Your task to perform on an android device: Show the shopping cart on costco. Search for razer blade on costco, select the first entry, add it to the cart, then select checkout. Image 0: 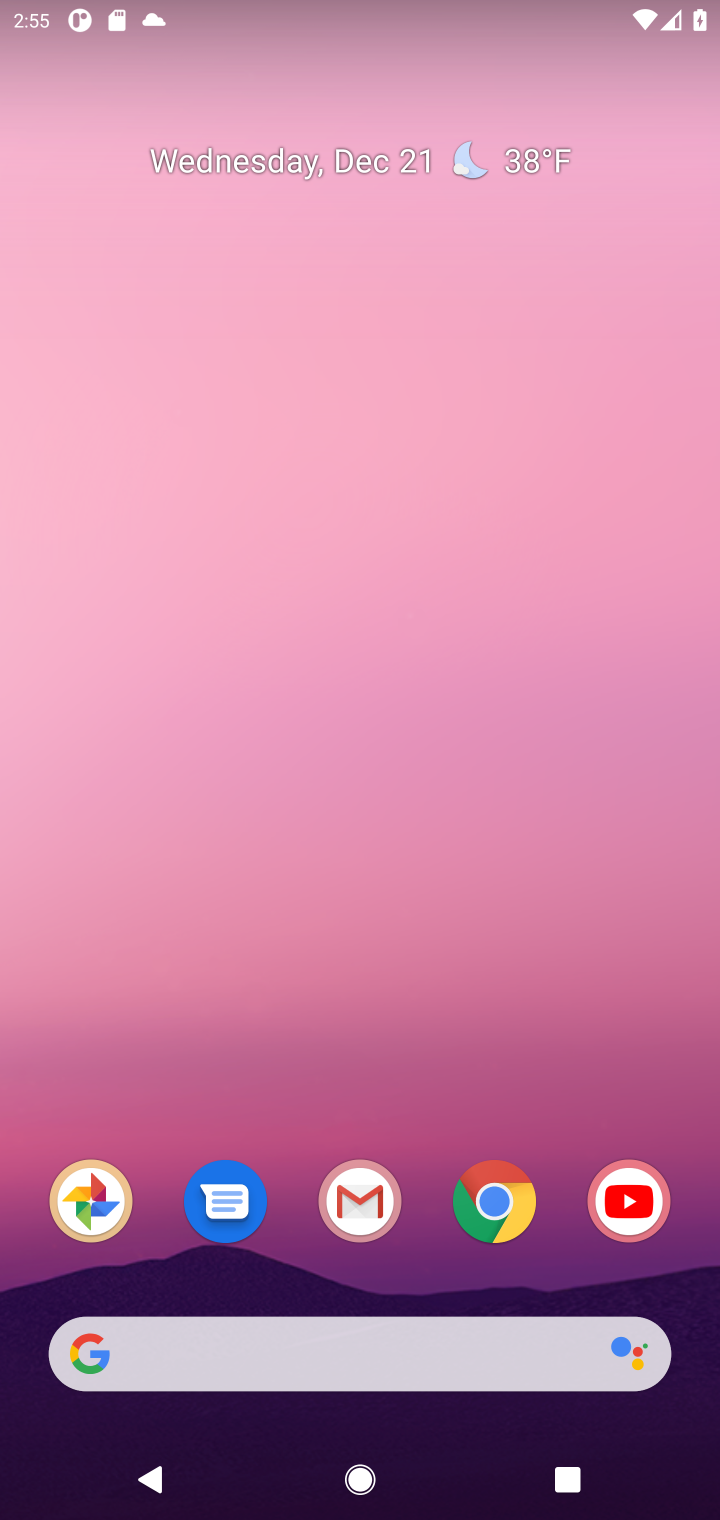
Step 0: click (495, 1204)
Your task to perform on an android device: Show the shopping cart on costco. Search for razer blade on costco, select the first entry, add it to the cart, then select checkout. Image 1: 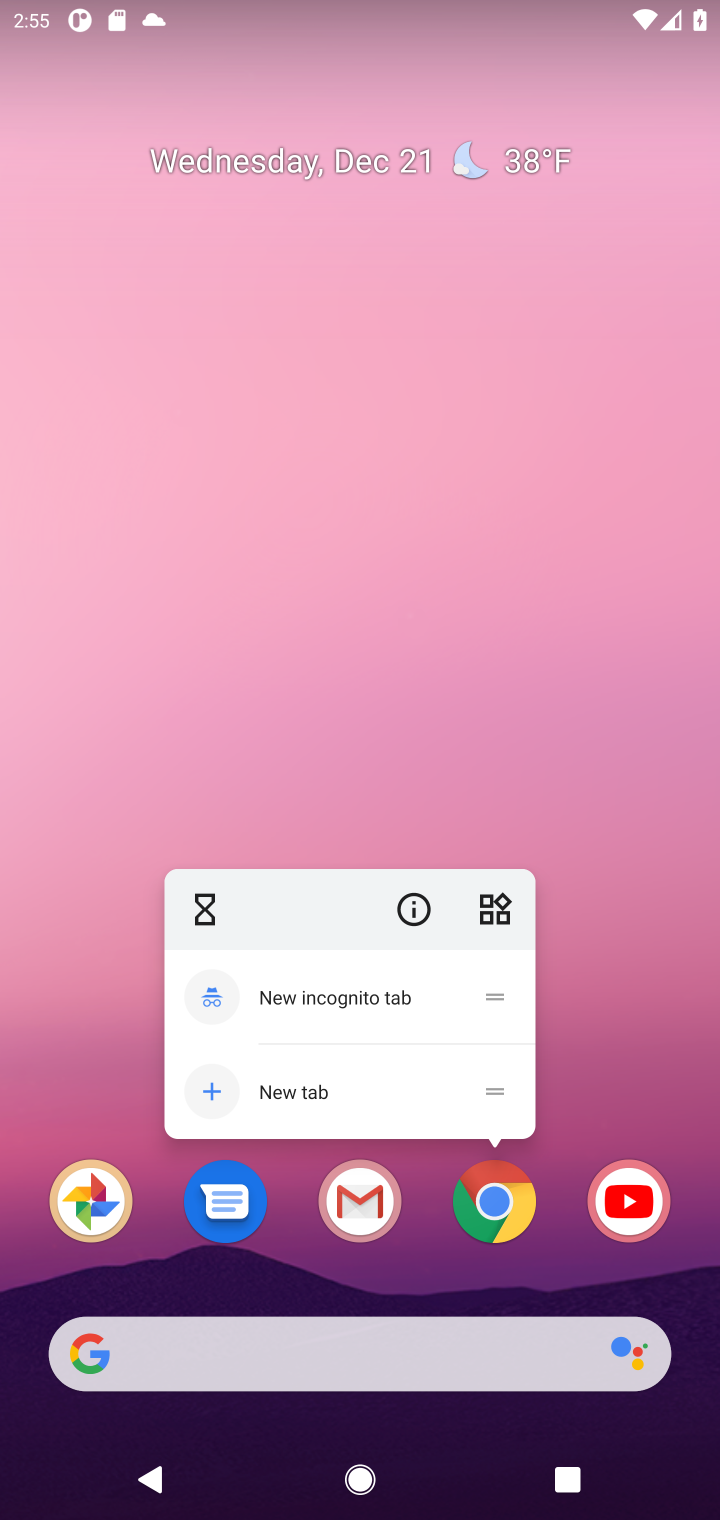
Step 1: click (501, 1214)
Your task to perform on an android device: Show the shopping cart on costco. Search for razer blade on costco, select the first entry, add it to the cart, then select checkout. Image 2: 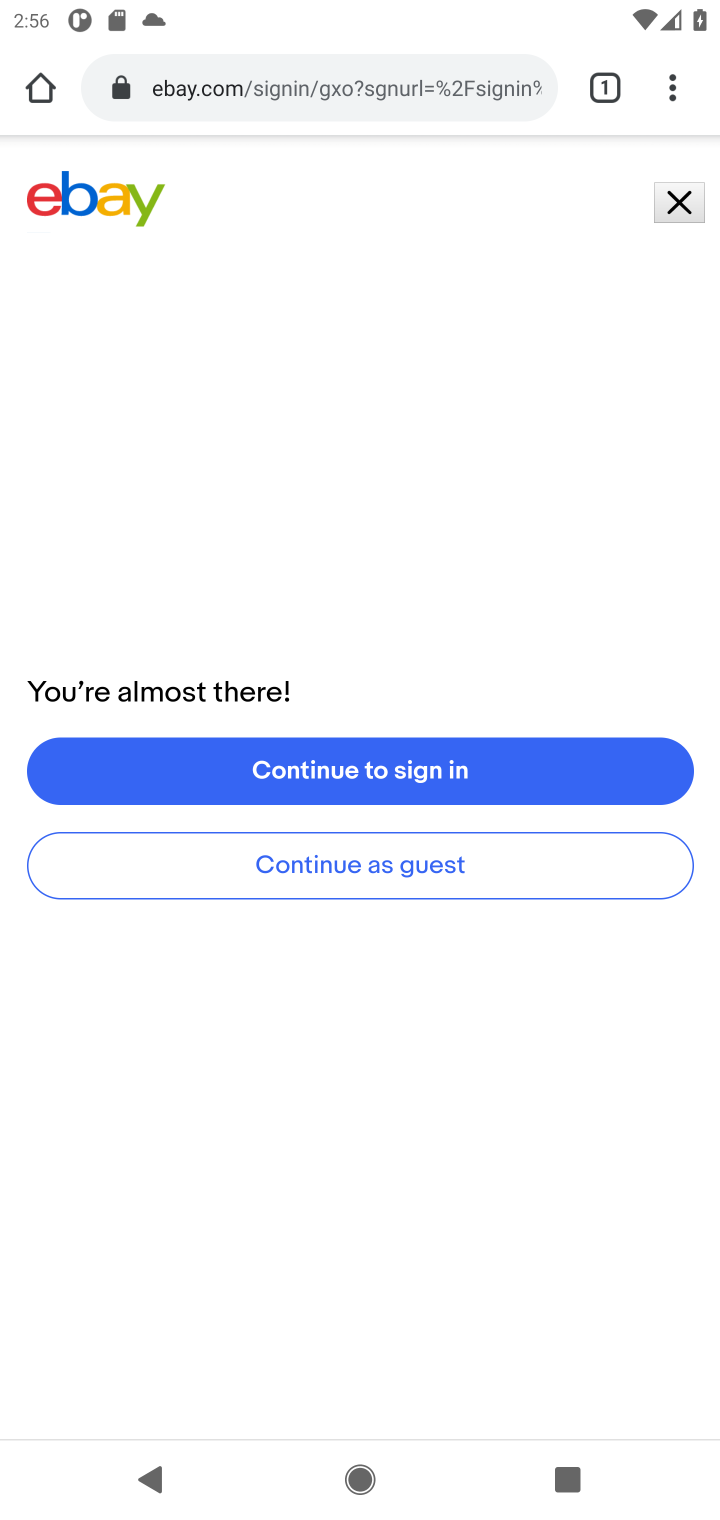
Step 2: click (202, 98)
Your task to perform on an android device: Show the shopping cart on costco. Search for razer blade on costco, select the first entry, add it to the cart, then select checkout. Image 3: 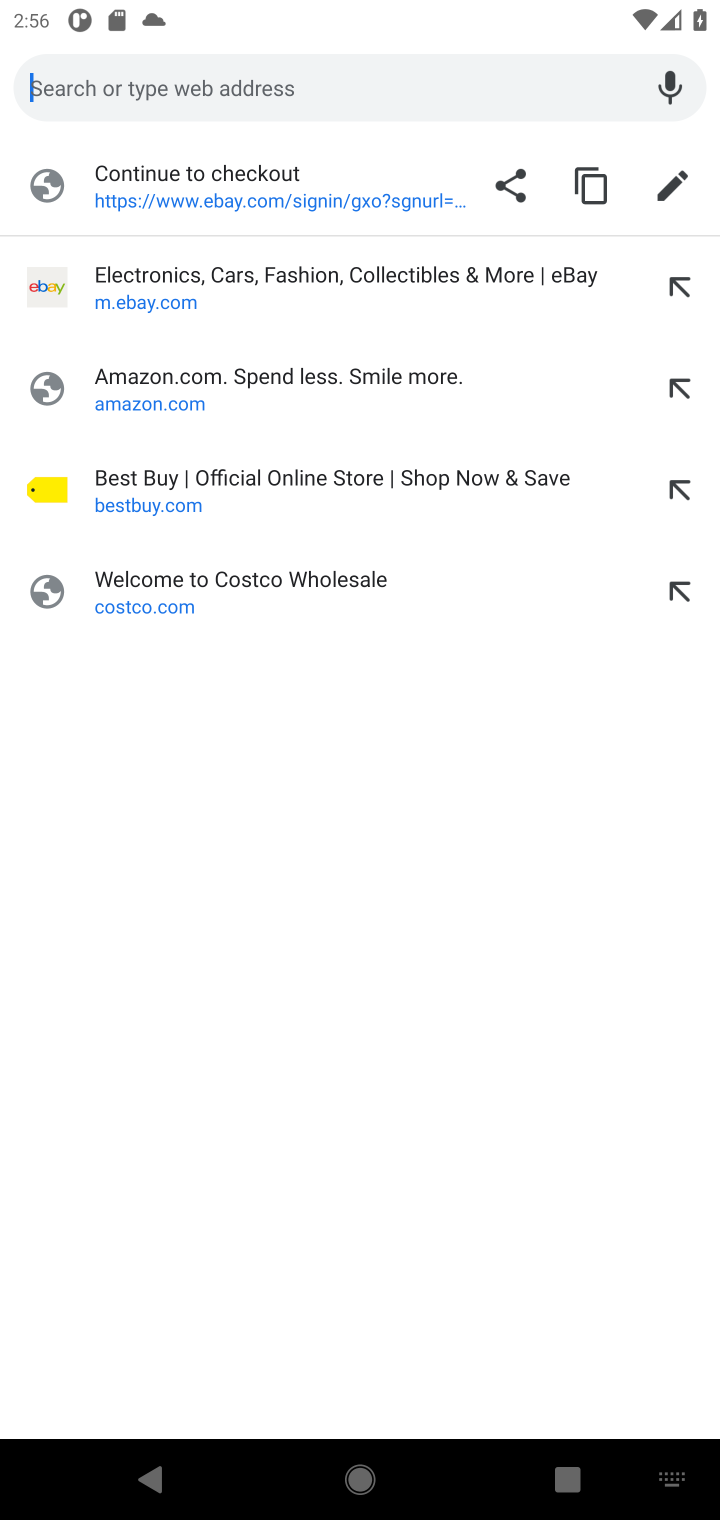
Step 3: click (130, 600)
Your task to perform on an android device: Show the shopping cart on costco. Search for razer blade on costco, select the first entry, add it to the cart, then select checkout. Image 4: 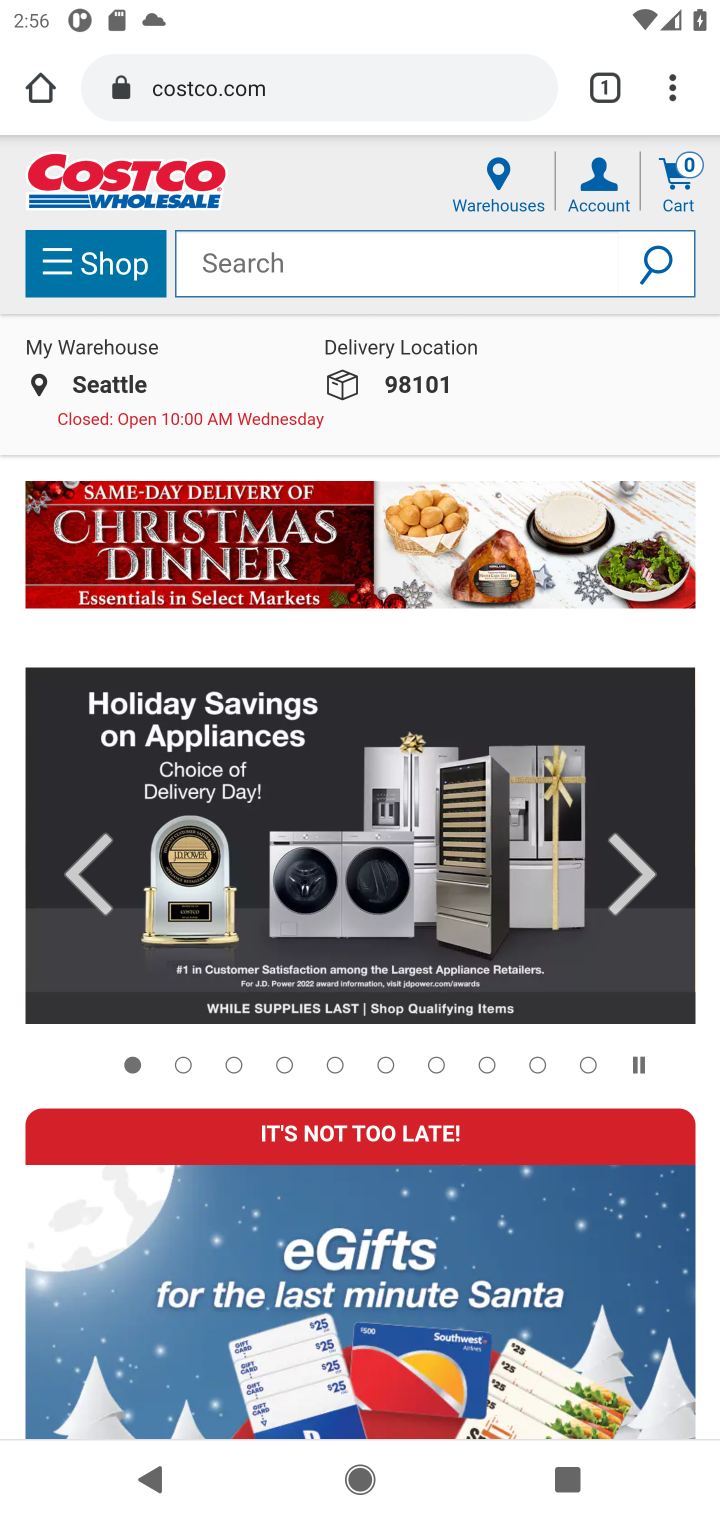
Step 4: click (671, 184)
Your task to perform on an android device: Show the shopping cart on costco. Search for razer blade on costco, select the first entry, add it to the cart, then select checkout. Image 5: 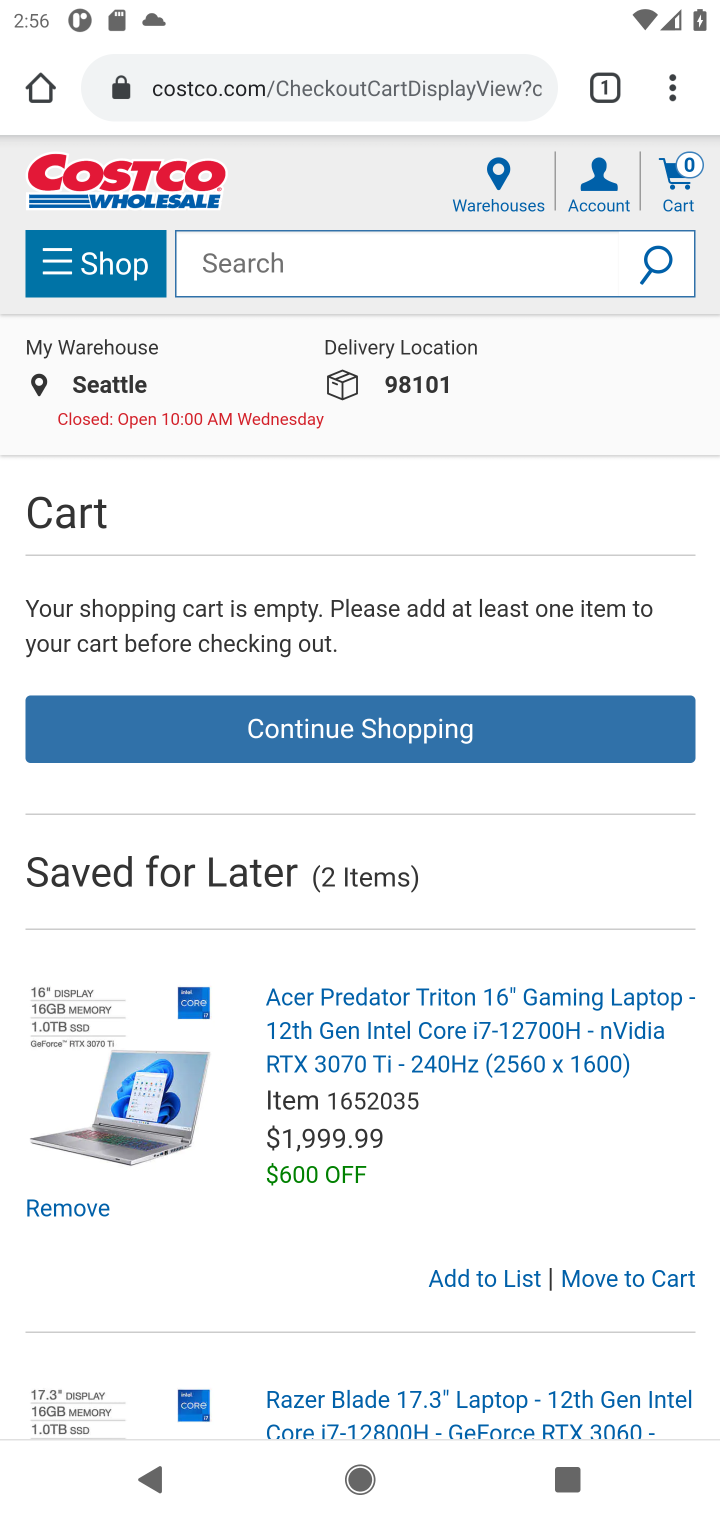
Step 5: click (227, 270)
Your task to perform on an android device: Show the shopping cart on costco. Search for razer blade on costco, select the first entry, add it to the cart, then select checkout. Image 6: 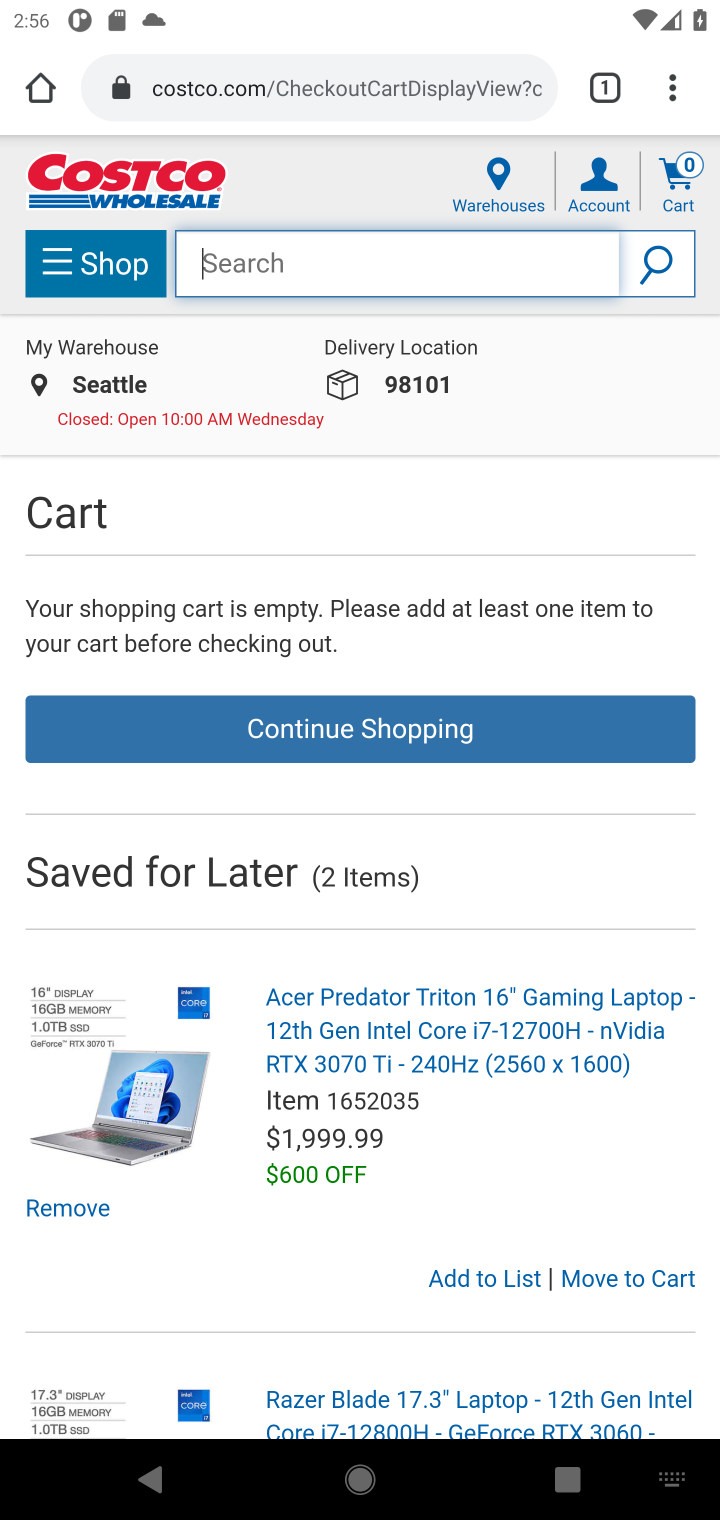
Step 6: type "razer blade"
Your task to perform on an android device: Show the shopping cart on costco. Search for razer blade on costco, select the first entry, add it to the cart, then select checkout. Image 7: 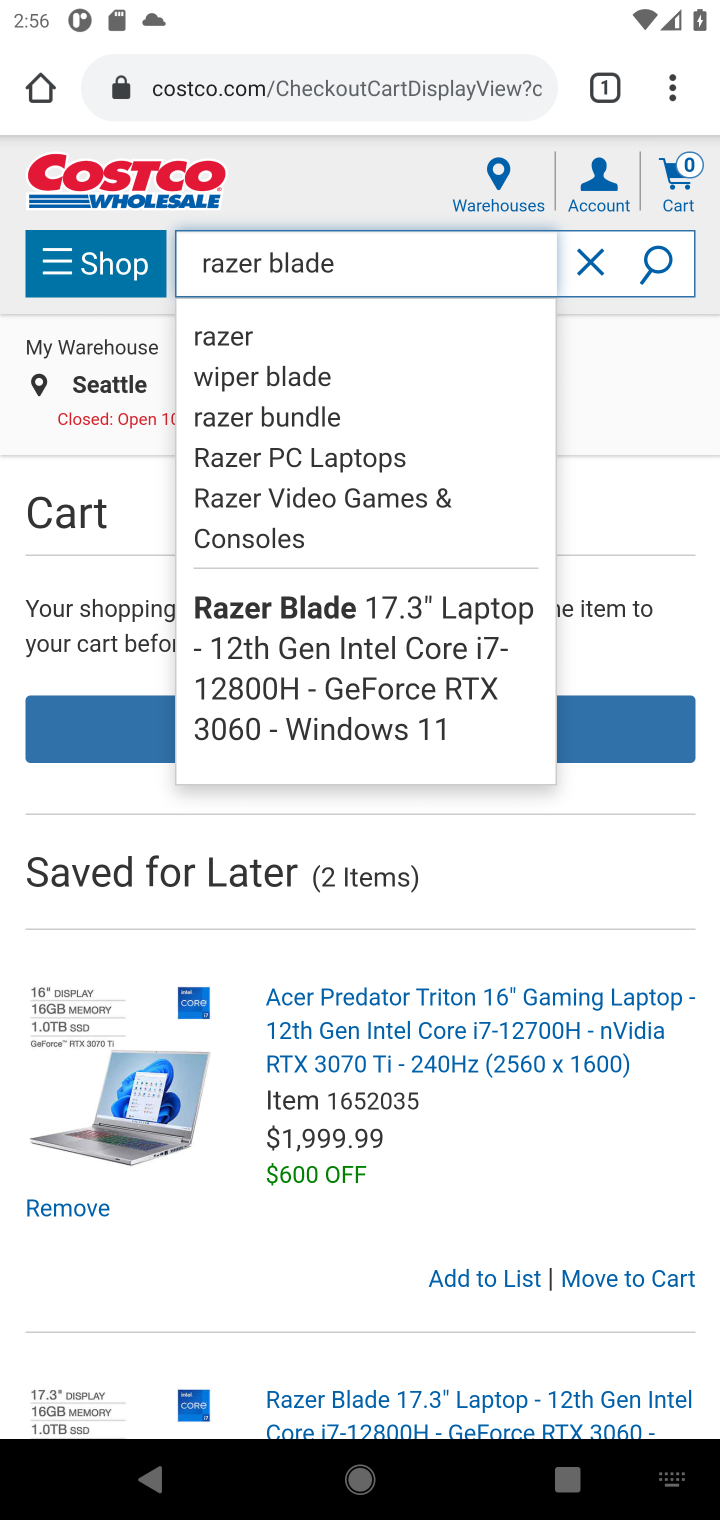
Step 7: click (652, 258)
Your task to perform on an android device: Show the shopping cart on costco. Search for razer blade on costco, select the first entry, add it to the cart, then select checkout. Image 8: 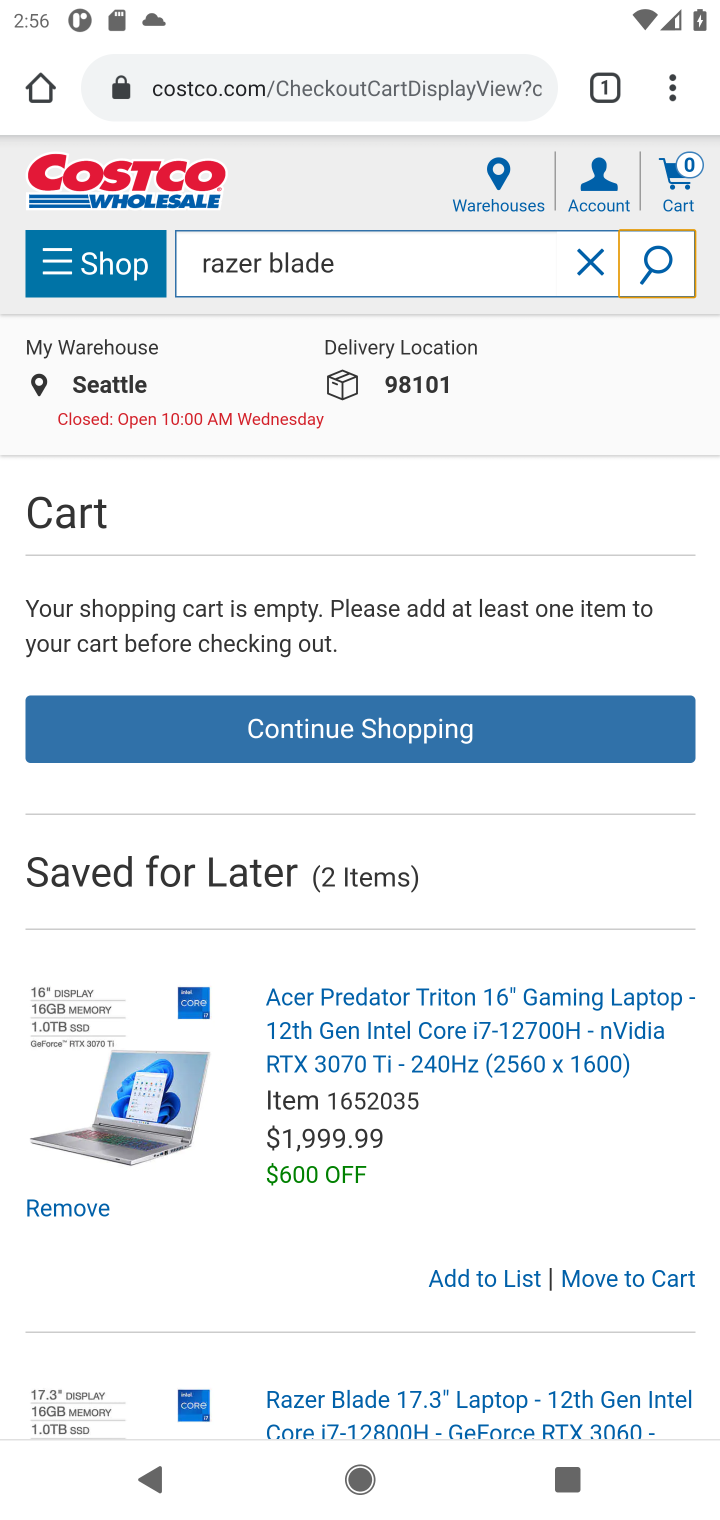
Step 8: click (656, 267)
Your task to perform on an android device: Show the shopping cart on costco. Search for razer blade on costco, select the first entry, add it to the cart, then select checkout. Image 9: 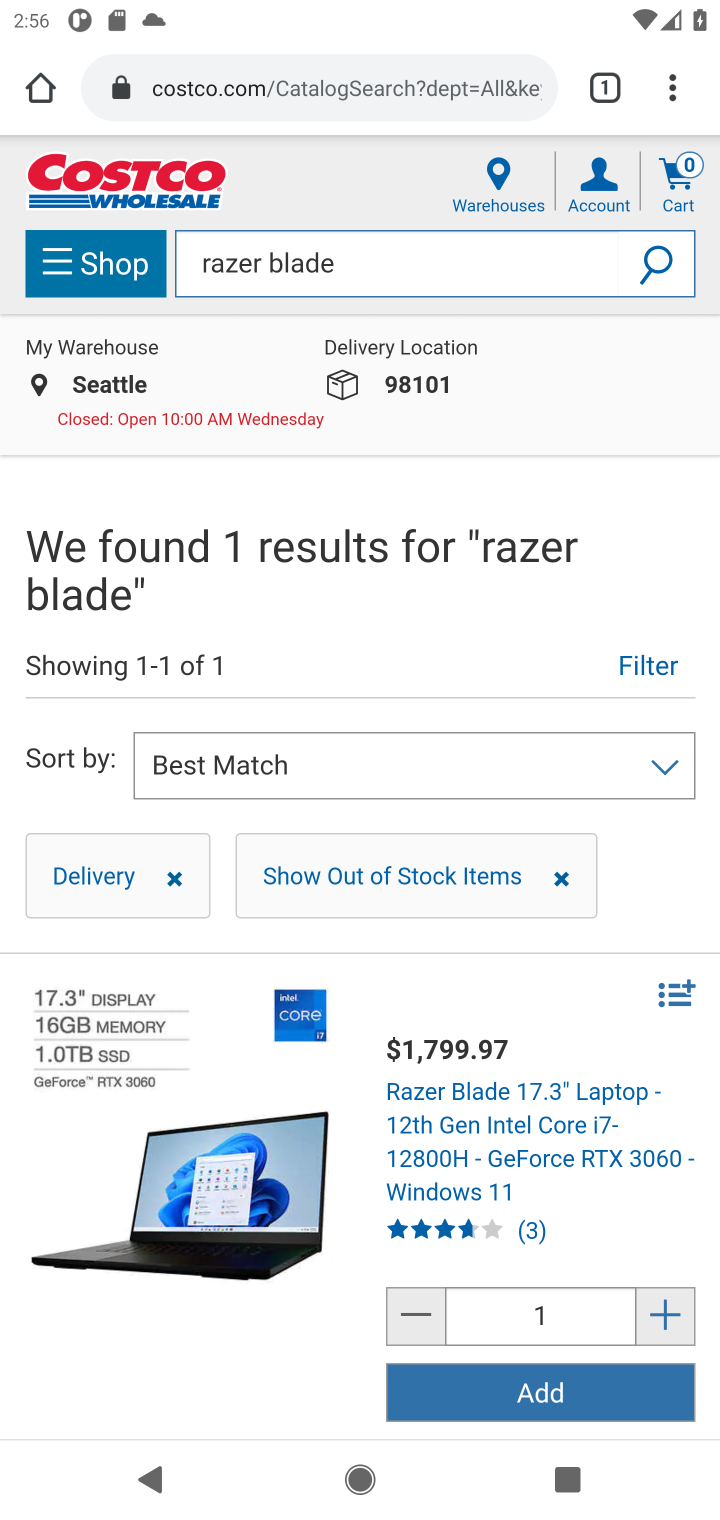
Step 9: click (561, 1392)
Your task to perform on an android device: Show the shopping cart on costco. Search for razer blade on costco, select the first entry, add it to the cart, then select checkout. Image 10: 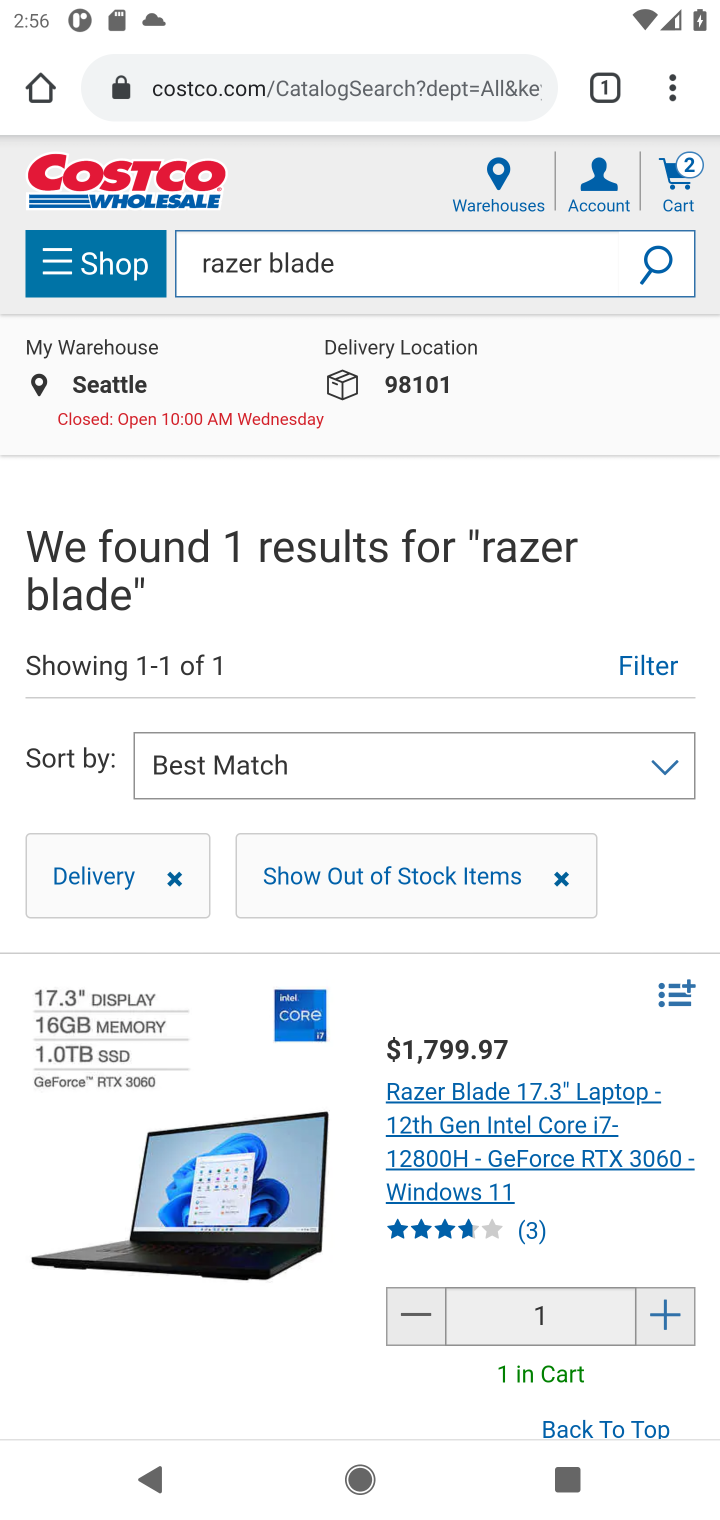
Step 10: click (682, 184)
Your task to perform on an android device: Show the shopping cart on costco. Search for razer blade on costco, select the first entry, add it to the cart, then select checkout. Image 11: 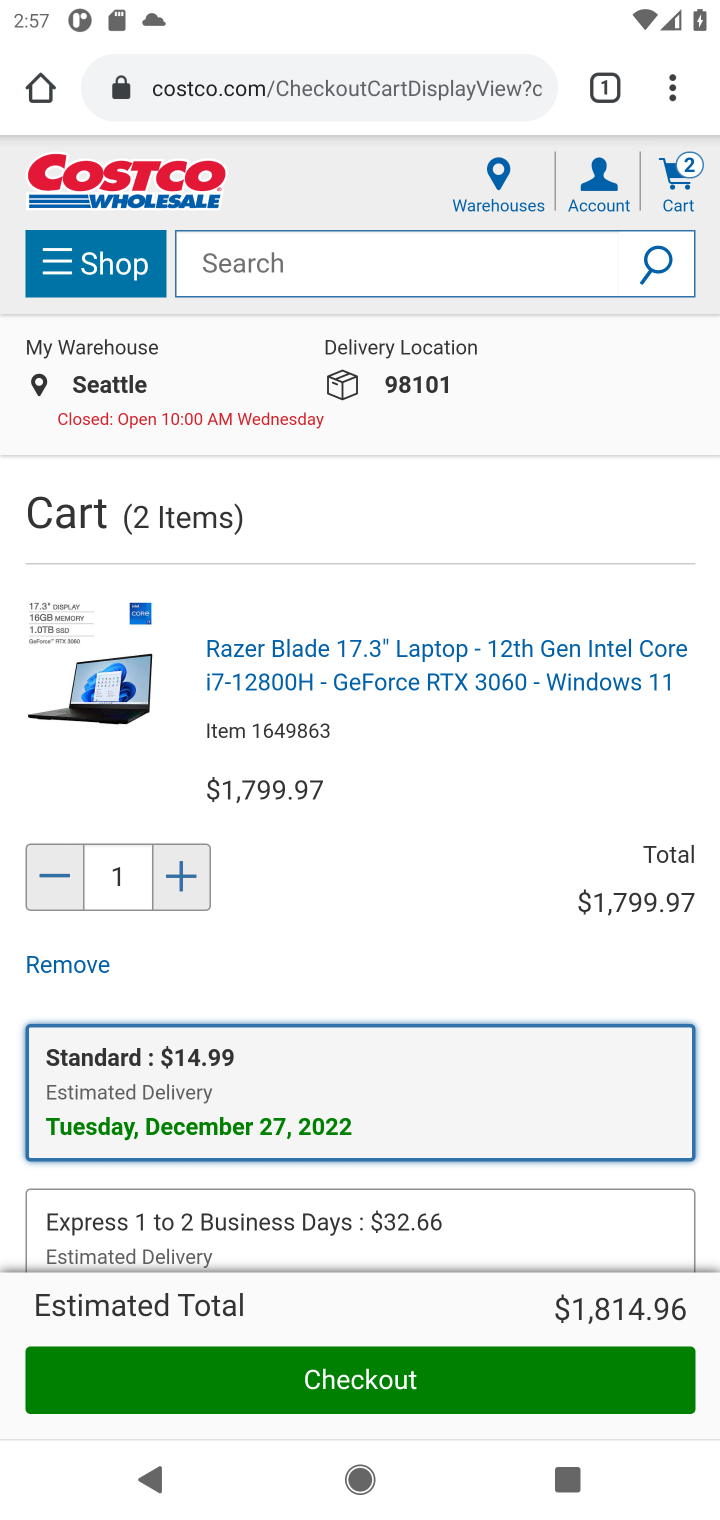
Step 11: click (357, 1385)
Your task to perform on an android device: Show the shopping cart on costco. Search for razer blade on costco, select the first entry, add it to the cart, then select checkout. Image 12: 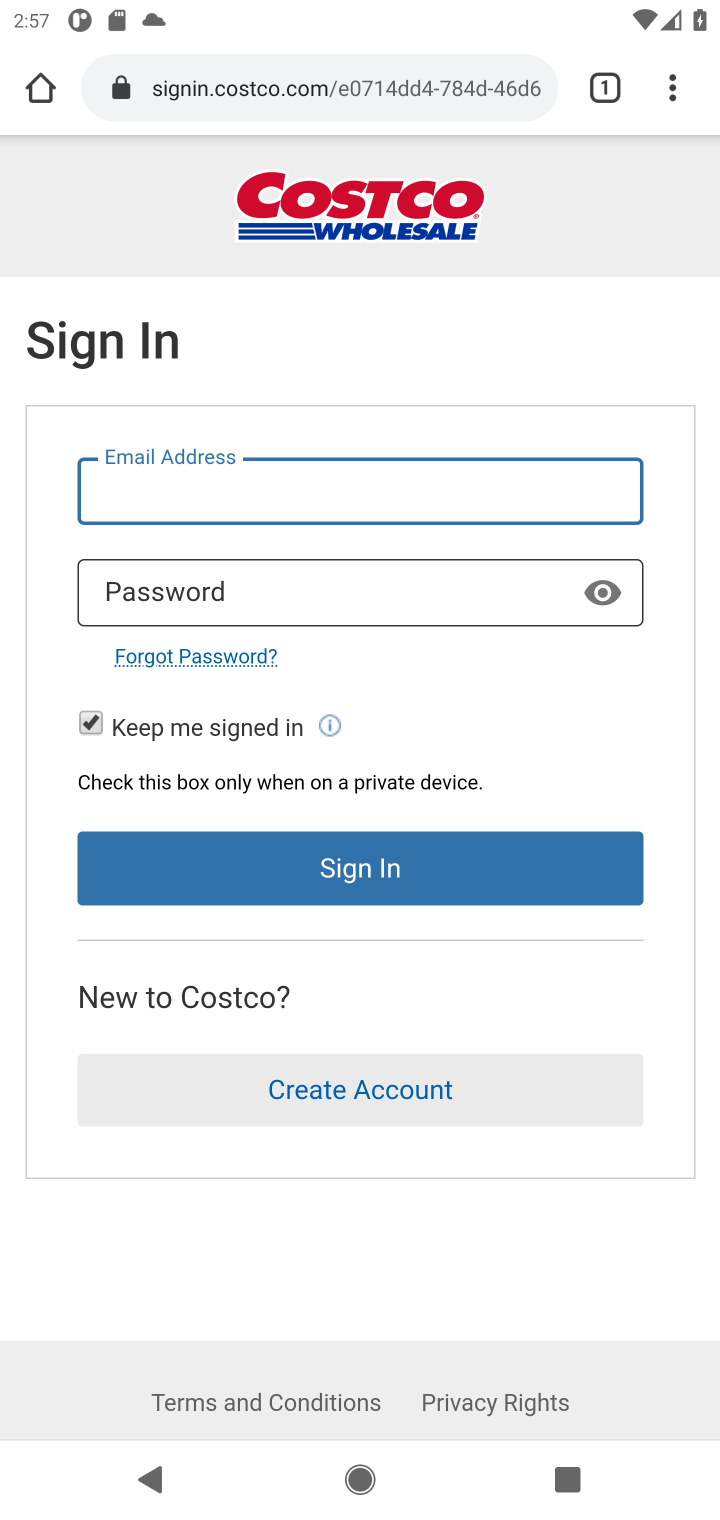
Step 12: task complete